Your task to perform on an android device: Open CNN.com Image 0: 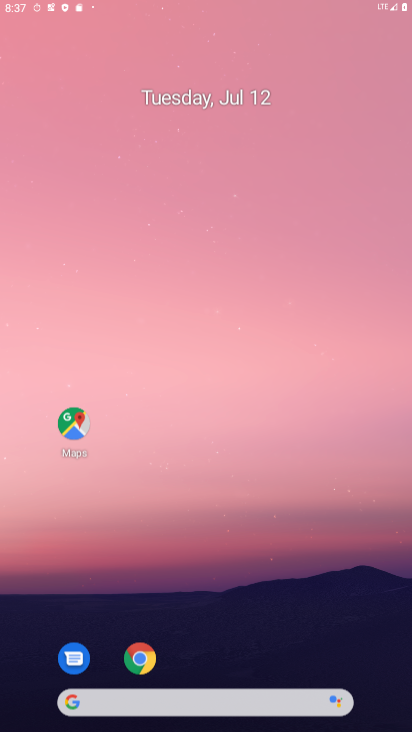
Step 0: drag from (357, 684) to (218, 39)
Your task to perform on an android device: Open CNN.com Image 1: 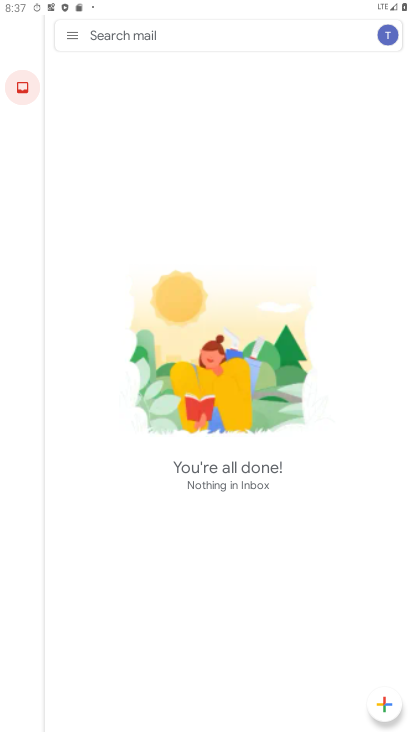
Step 1: press home button
Your task to perform on an android device: Open CNN.com Image 2: 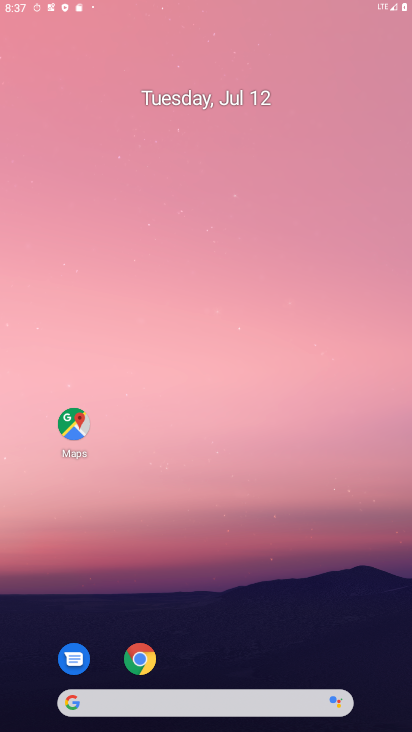
Step 2: drag from (371, 675) to (249, 36)
Your task to perform on an android device: Open CNN.com Image 3: 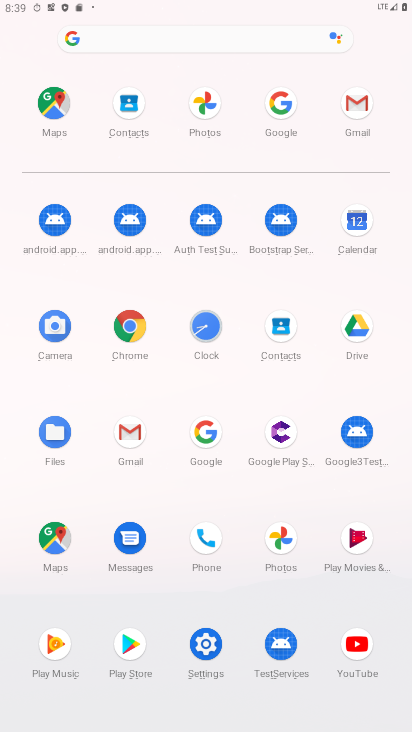
Step 3: click (195, 444)
Your task to perform on an android device: Open CNN.com Image 4: 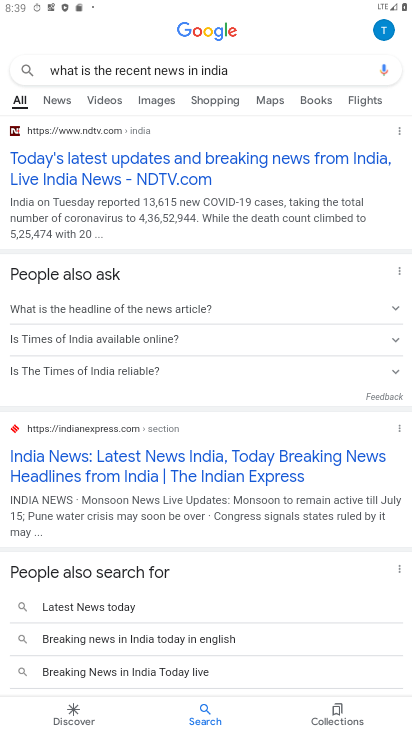
Step 4: press back button
Your task to perform on an android device: Open CNN.com Image 5: 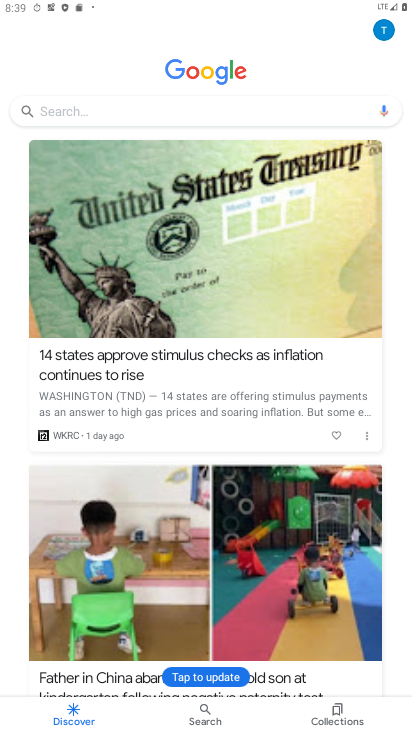
Step 5: click (130, 101)
Your task to perform on an android device: Open CNN.com Image 6: 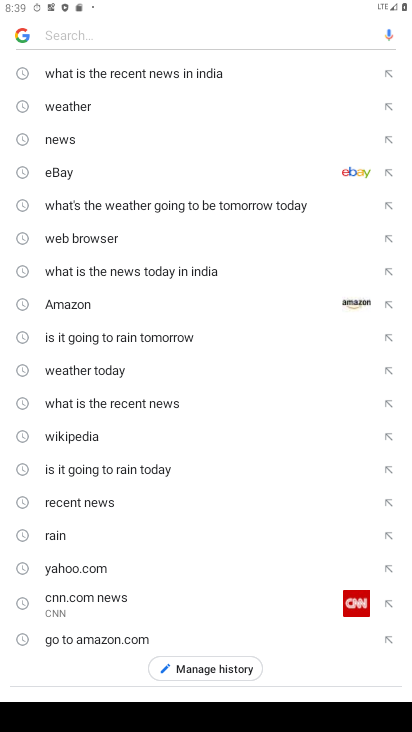
Step 6: click (76, 602)
Your task to perform on an android device: Open CNN.com Image 7: 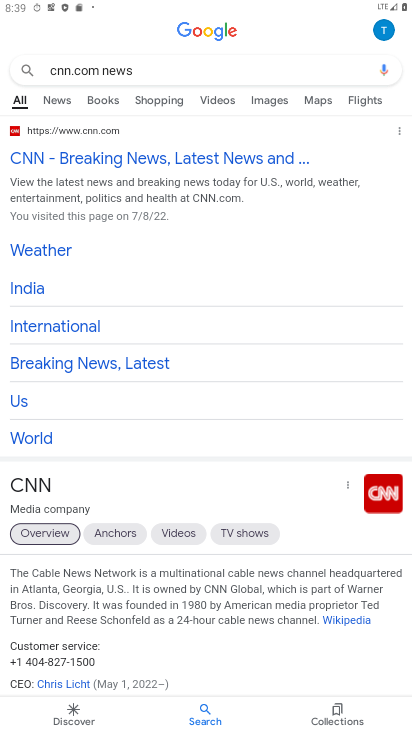
Step 7: task complete